Your task to perform on an android device: turn off wifi Image 0: 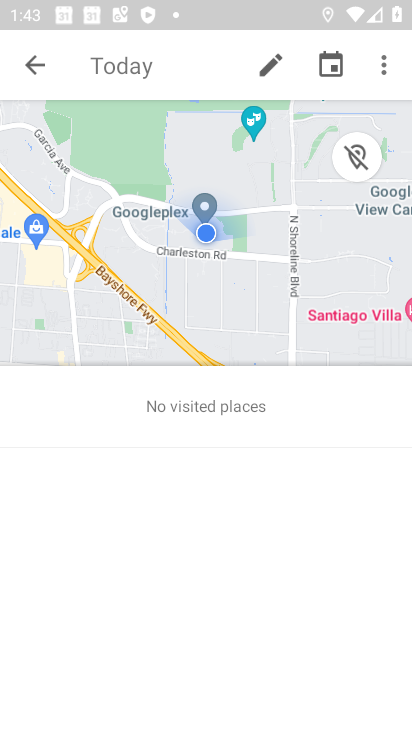
Step 0: press home button
Your task to perform on an android device: turn off wifi Image 1: 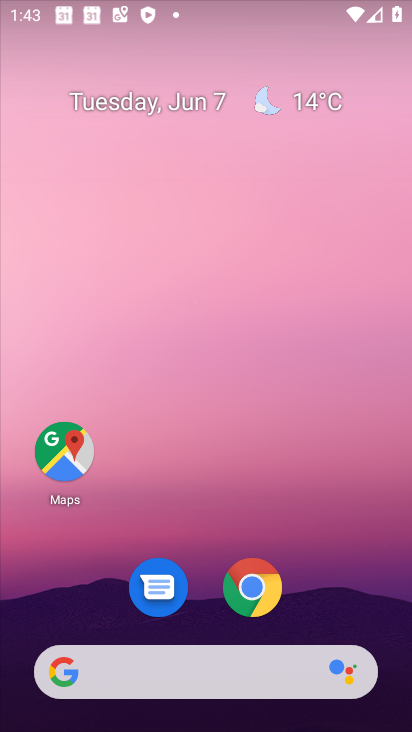
Step 1: drag from (186, 712) to (243, 78)
Your task to perform on an android device: turn off wifi Image 2: 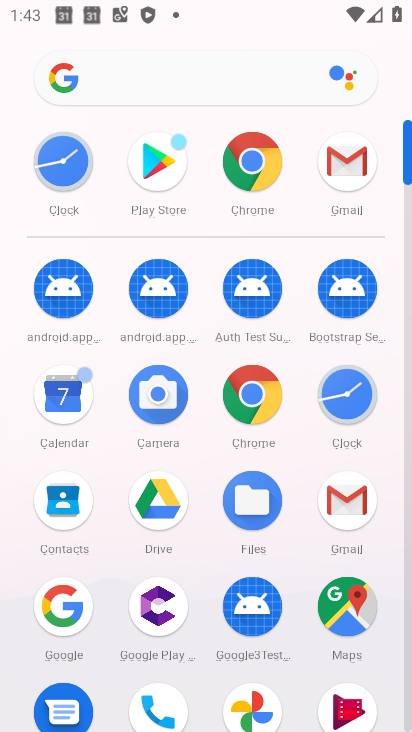
Step 2: drag from (184, 541) to (277, 179)
Your task to perform on an android device: turn off wifi Image 3: 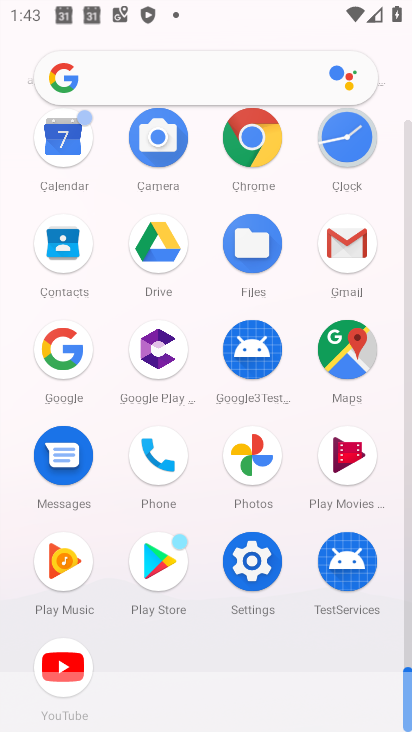
Step 3: click (352, 345)
Your task to perform on an android device: turn off wifi Image 4: 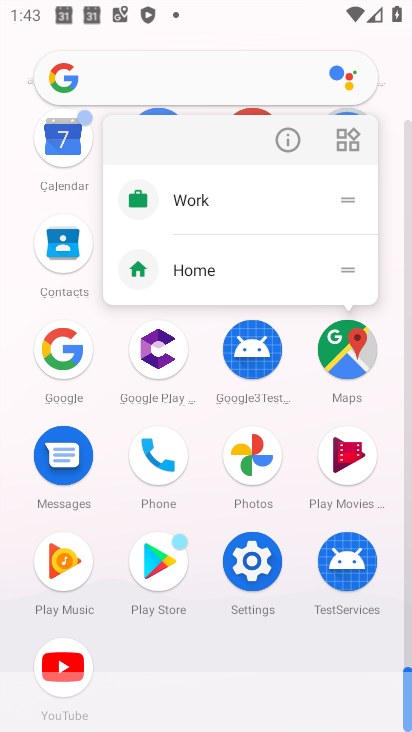
Step 4: click (350, 346)
Your task to perform on an android device: turn off wifi Image 5: 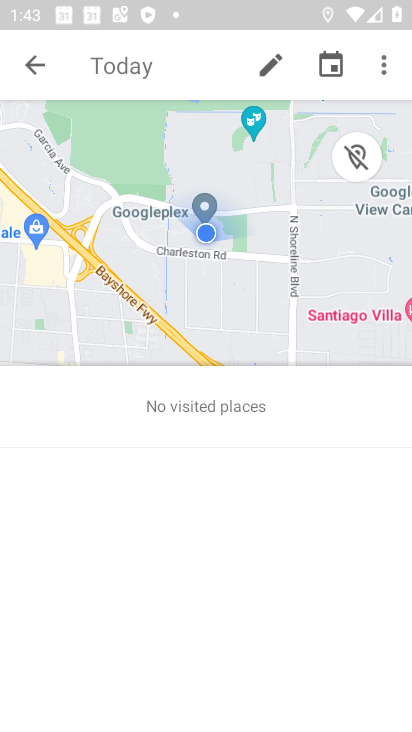
Step 5: click (33, 69)
Your task to perform on an android device: turn off wifi Image 6: 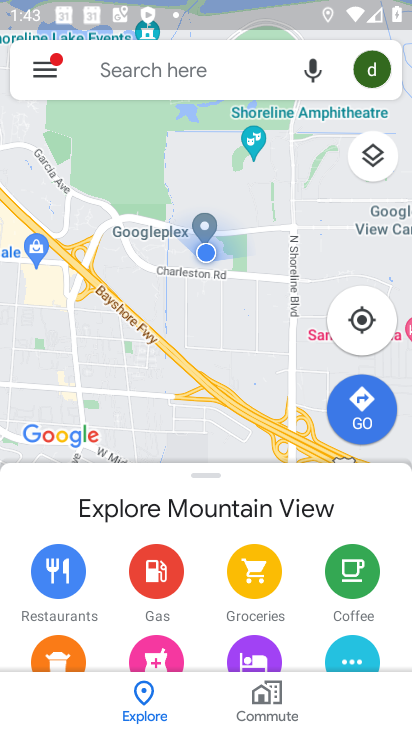
Step 6: press home button
Your task to perform on an android device: turn off wifi Image 7: 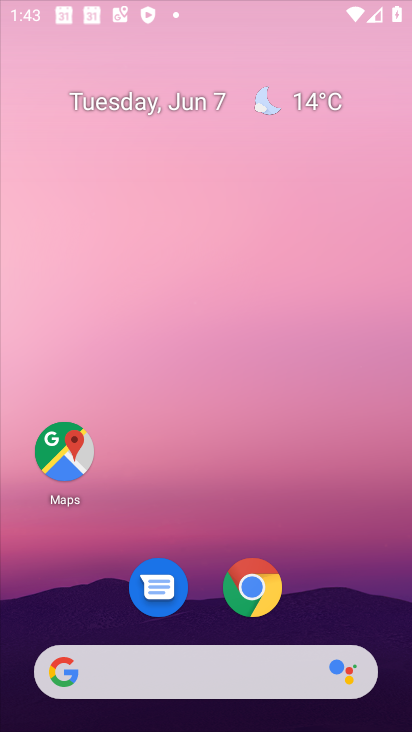
Step 7: drag from (291, 640) to (289, 62)
Your task to perform on an android device: turn off wifi Image 8: 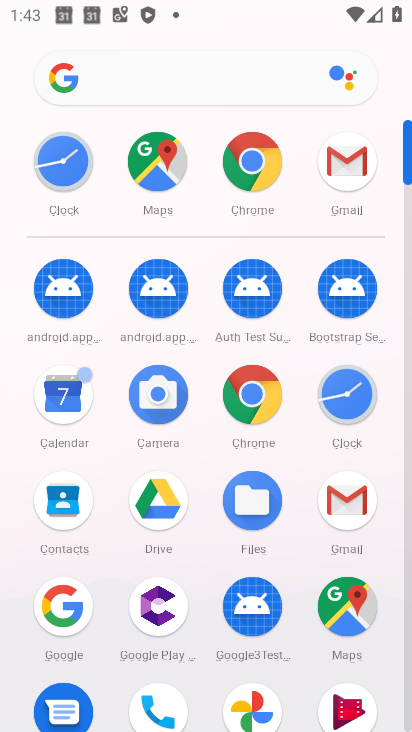
Step 8: drag from (259, 475) to (279, 125)
Your task to perform on an android device: turn off wifi Image 9: 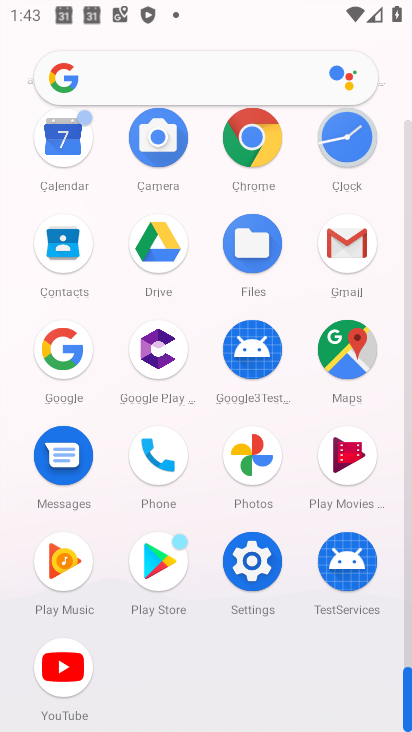
Step 9: click (273, 573)
Your task to perform on an android device: turn off wifi Image 10: 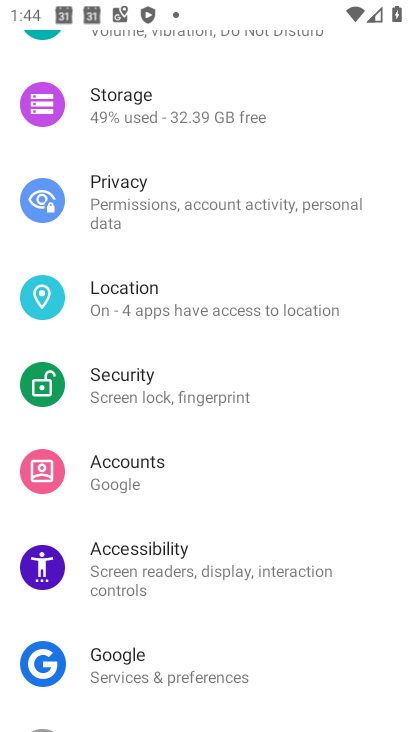
Step 10: drag from (185, 162) to (226, 564)
Your task to perform on an android device: turn off wifi Image 11: 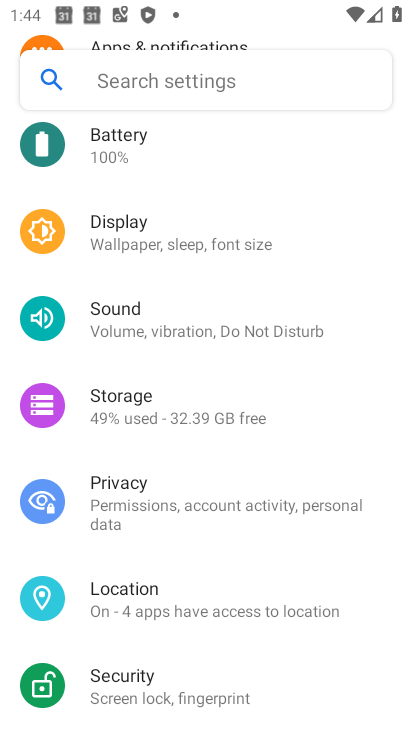
Step 11: drag from (255, 200) to (219, 590)
Your task to perform on an android device: turn off wifi Image 12: 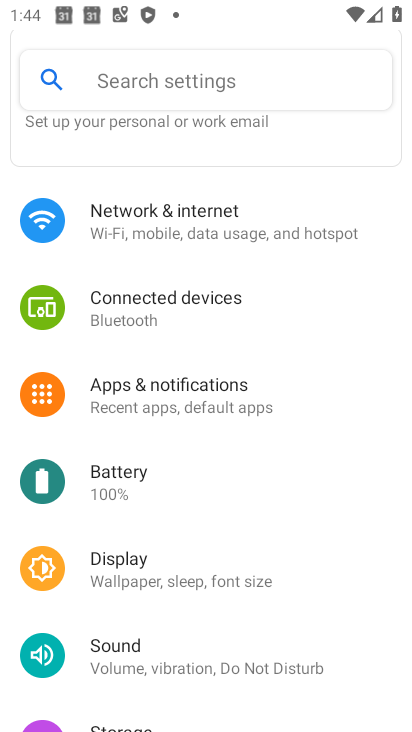
Step 12: drag from (214, 296) to (204, 627)
Your task to perform on an android device: turn off wifi Image 13: 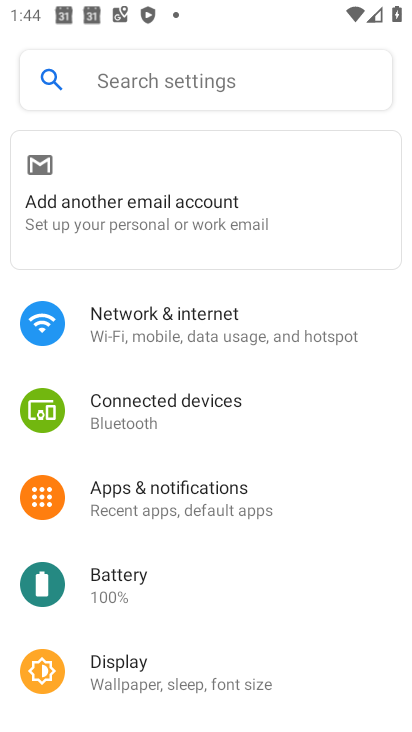
Step 13: click (224, 350)
Your task to perform on an android device: turn off wifi Image 14: 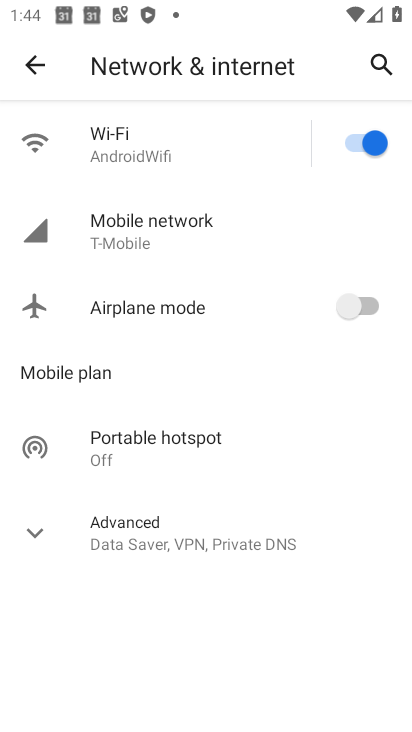
Step 14: click (361, 146)
Your task to perform on an android device: turn off wifi Image 15: 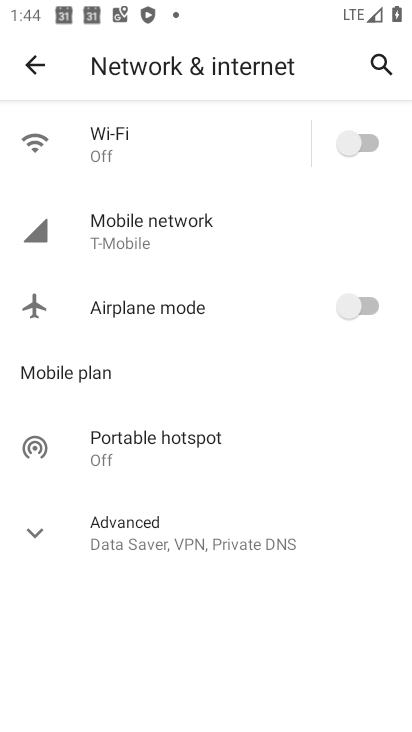
Step 15: task complete